Your task to perform on an android device: Check the news Image 0: 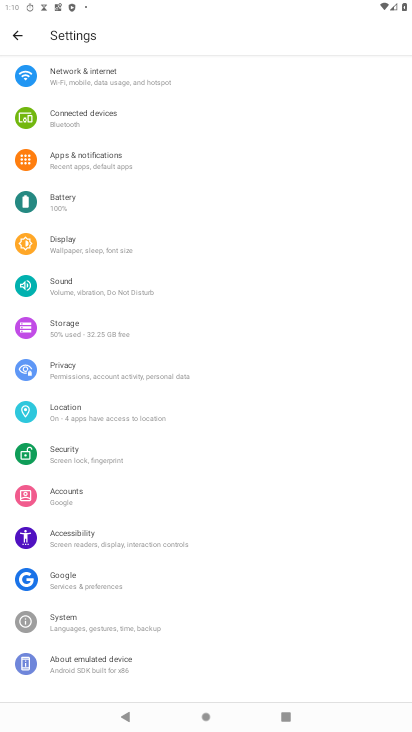
Step 0: press home button
Your task to perform on an android device: Check the news Image 1: 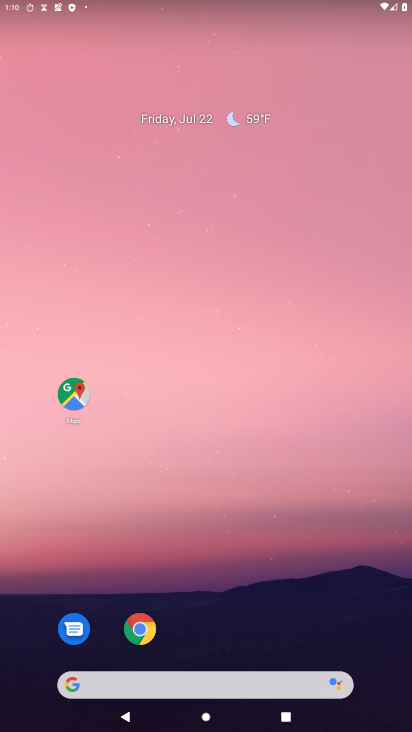
Step 1: drag from (230, 672) to (185, 127)
Your task to perform on an android device: Check the news Image 2: 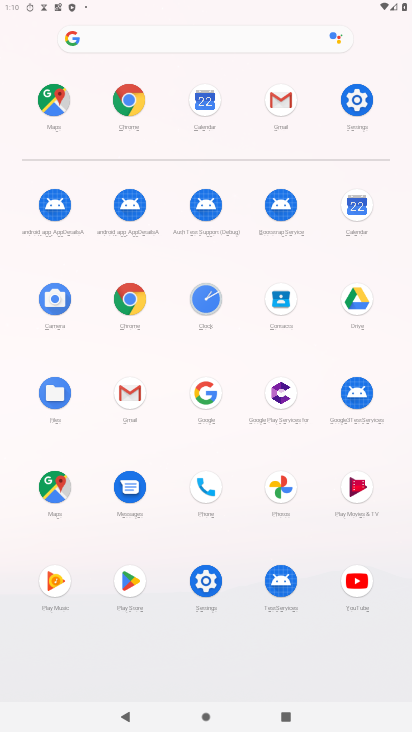
Step 2: click (123, 316)
Your task to perform on an android device: Check the news Image 3: 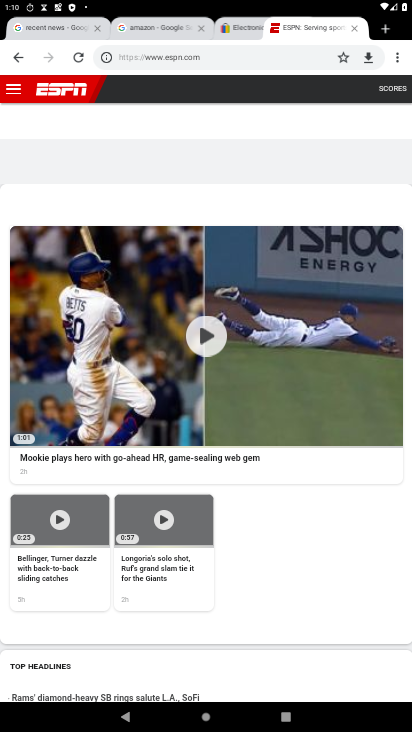
Step 3: click (163, 63)
Your task to perform on an android device: Check the news Image 4: 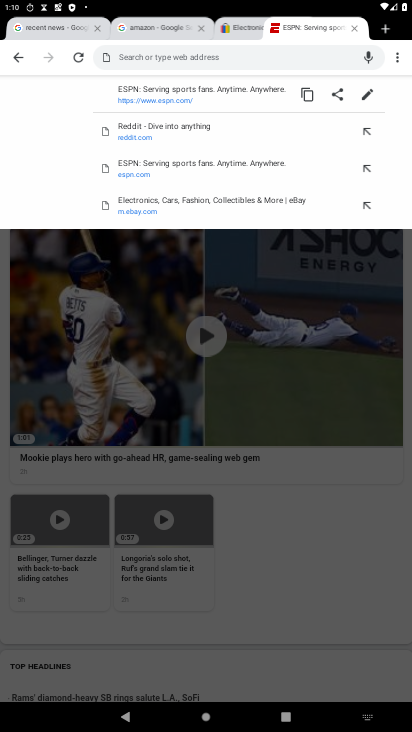
Step 4: type "check the news"
Your task to perform on an android device: Check the news Image 5: 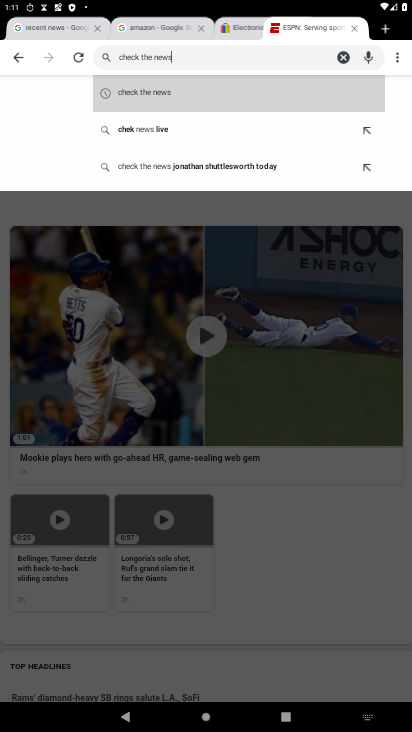
Step 5: click (245, 95)
Your task to perform on an android device: Check the news Image 6: 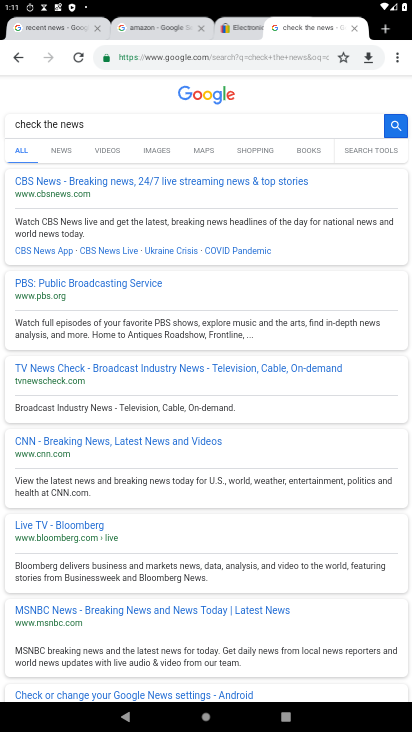
Step 6: task complete